Your task to perform on an android device: check out phone information Image 0: 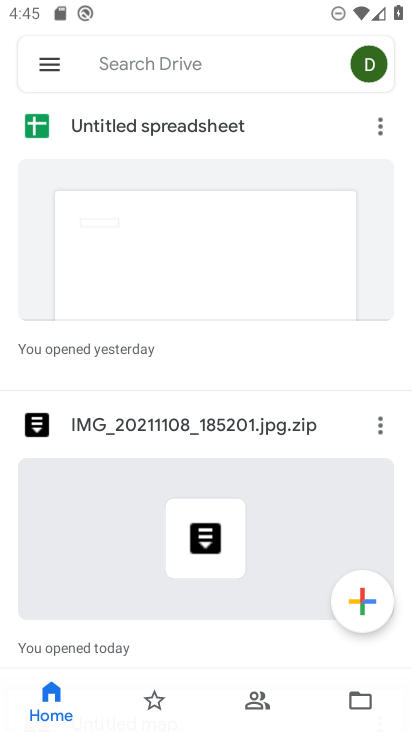
Step 0: press home button
Your task to perform on an android device: check out phone information Image 1: 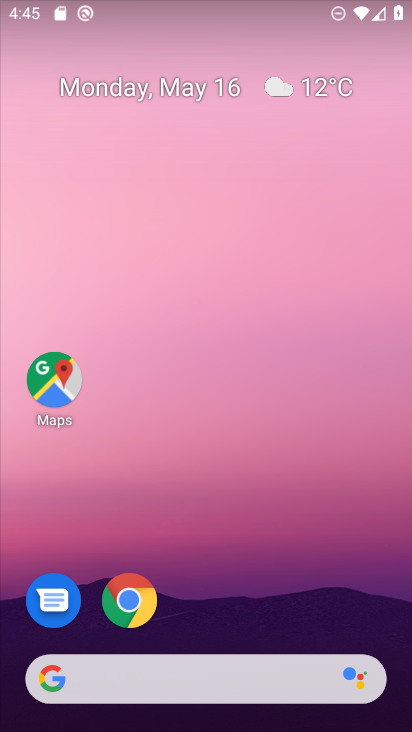
Step 1: drag from (269, 602) to (223, 97)
Your task to perform on an android device: check out phone information Image 2: 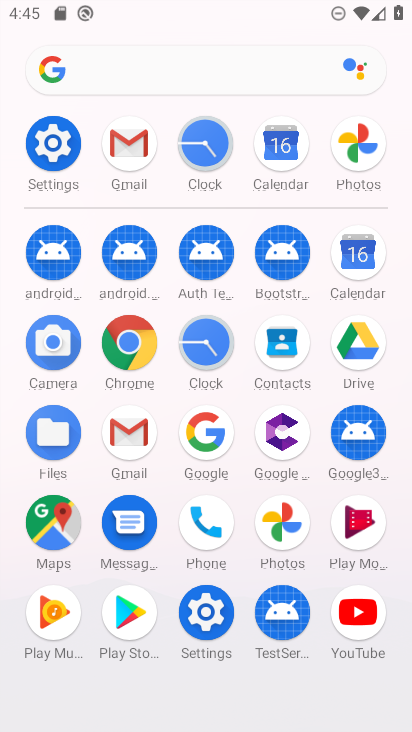
Step 2: click (208, 527)
Your task to perform on an android device: check out phone information Image 3: 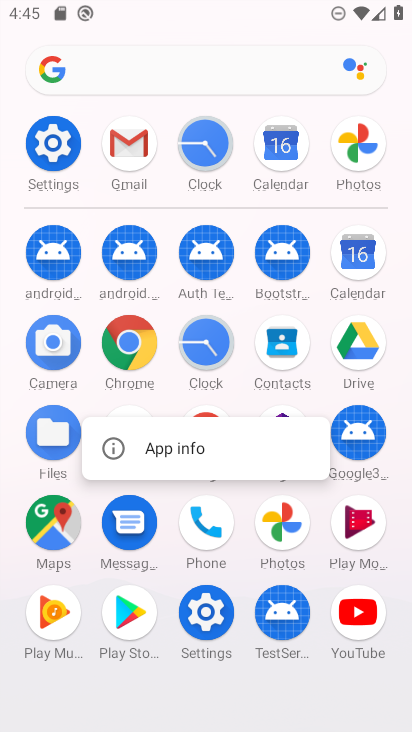
Step 3: click (203, 425)
Your task to perform on an android device: check out phone information Image 4: 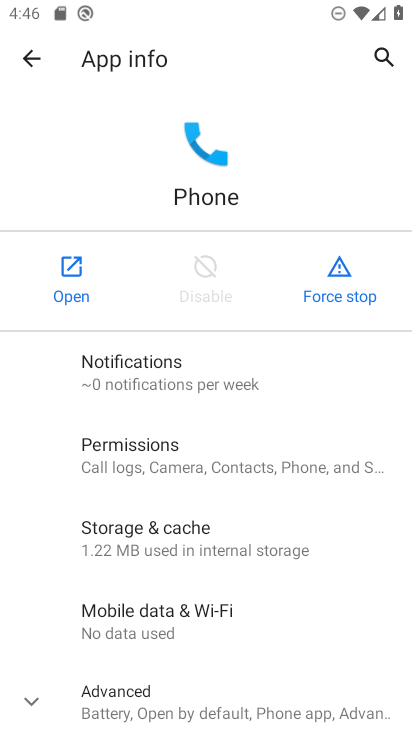
Step 4: task complete